Your task to perform on an android device: manage bookmarks in the chrome app Image 0: 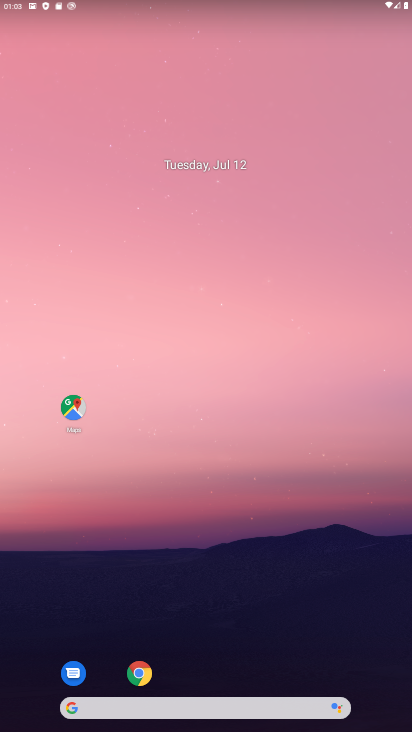
Step 0: press home button
Your task to perform on an android device: manage bookmarks in the chrome app Image 1: 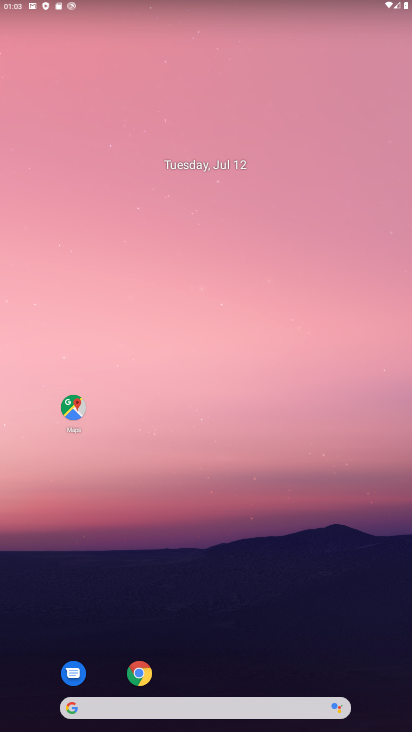
Step 1: drag from (316, 624) to (342, 12)
Your task to perform on an android device: manage bookmarks in the chrome app Image 2: 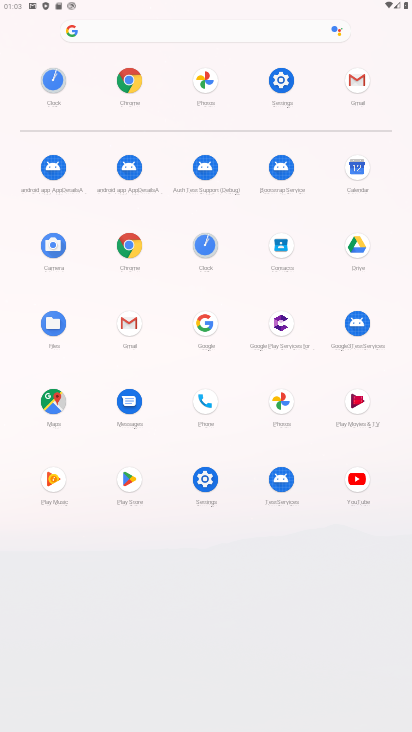
Step 2: click (128, 249)
Your task to perform on an android device: manage bookmarks in the chrome app Image 3: 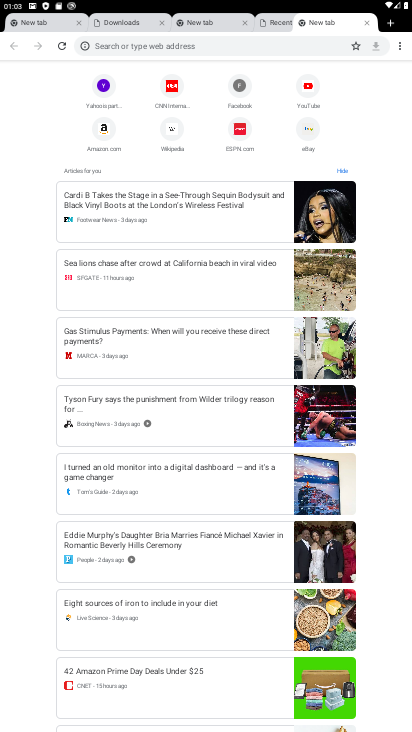
Step 3: task complete